Your task to perform on an android device: What's on my calendar today? Image 0: 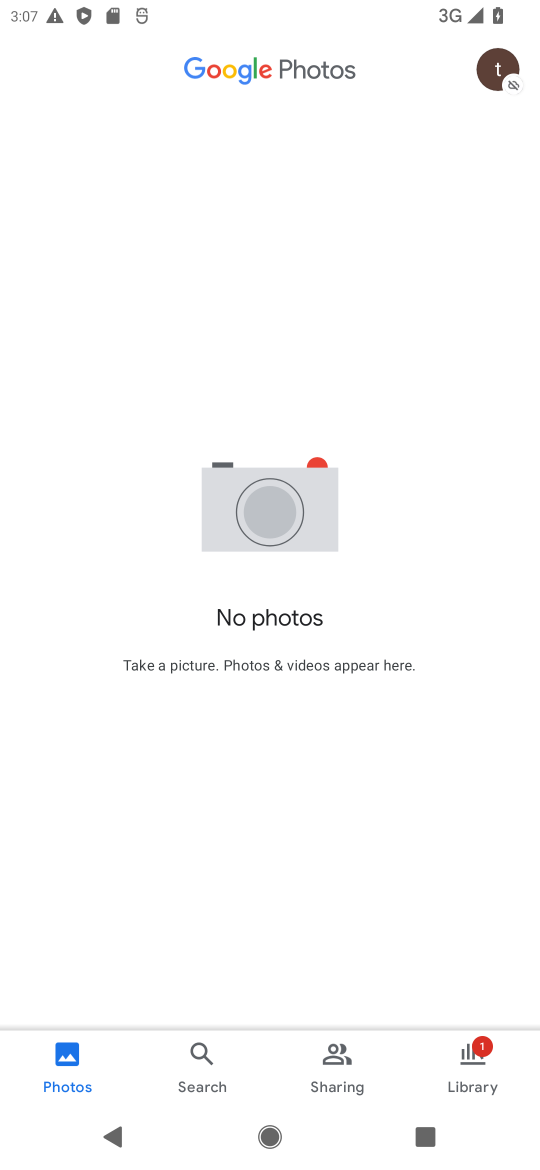
Step 0: press home button
Your task to perform on an android device: What's on my calendar today? Image 1: 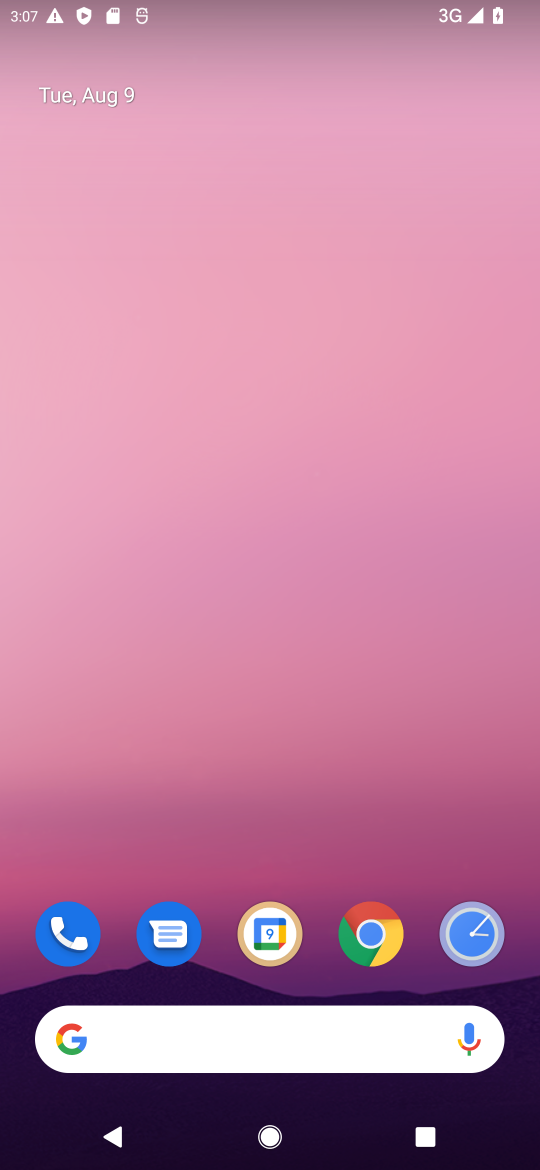
Step 1: click (255, 955)
Your task to perform on an android device: What's on my calendar today? Image 2: 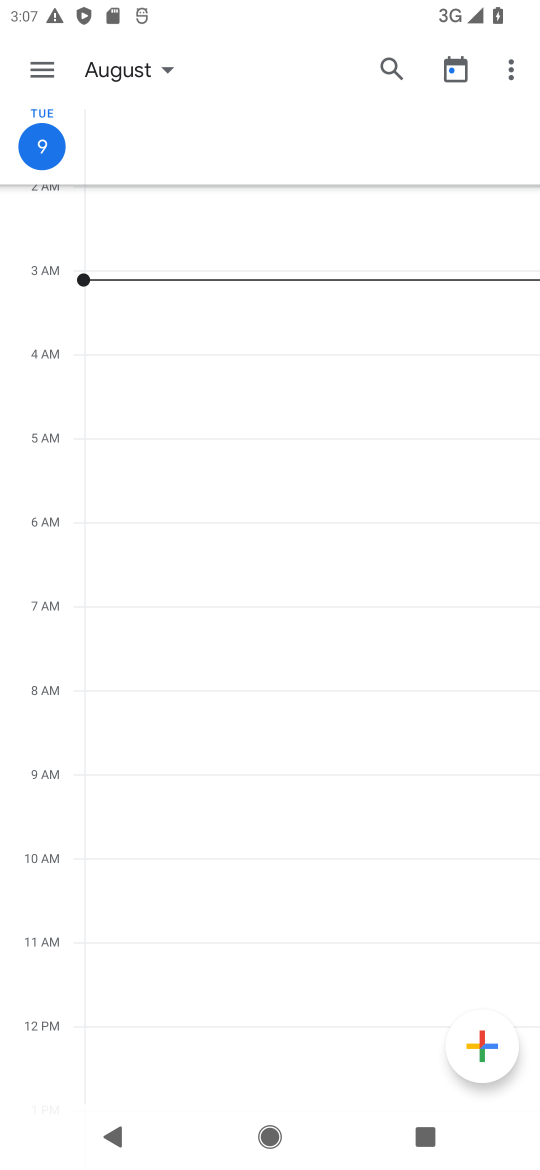
Step 2: task complete